Your task to perform on an android device: Go to Yahoo.com Image 0: 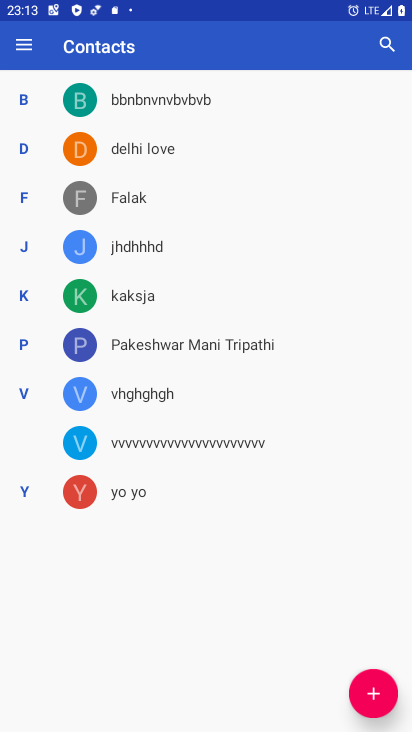
Step 0: press home button
Your task to perform on an android device: Go to Yahoo.com Image 1: 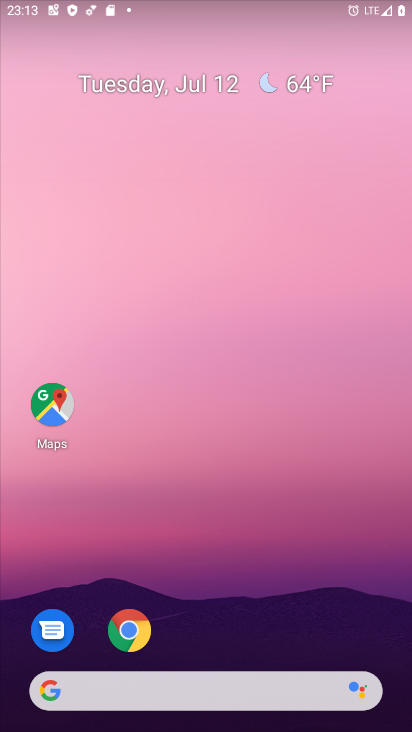
Step 1: drag from (206, 682) to (129, 0)
Your task to perform on an android device: Go to Yahoo.com Image 2: 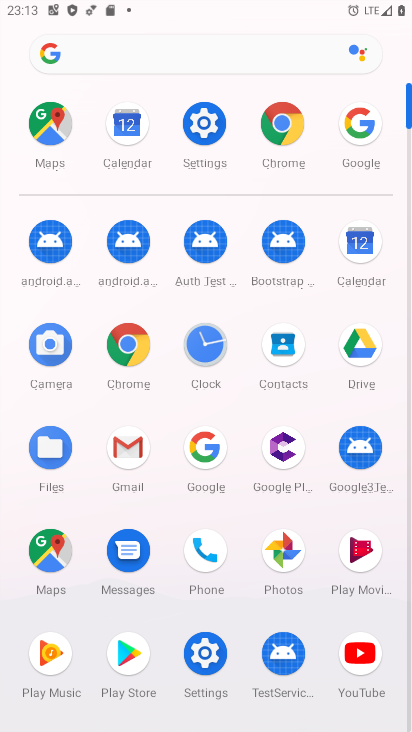
Step 2: click (200, 448)
Your task to perform on an android device: Go to Yahoo.com Image 3: 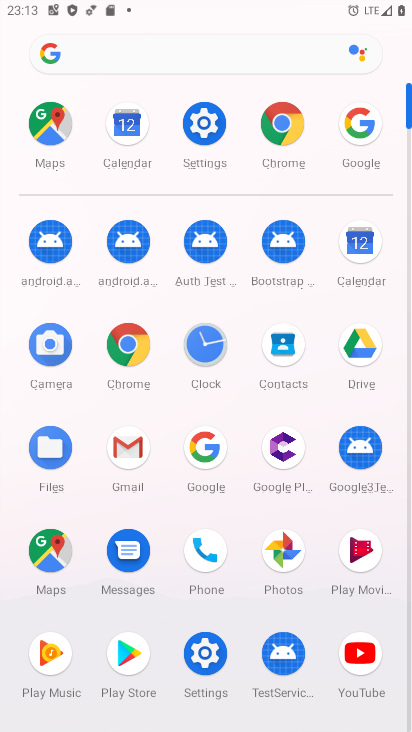
Step 3: click (200, 448)
Your task to perform on an android device: Go to Yahoo.com Image 4: 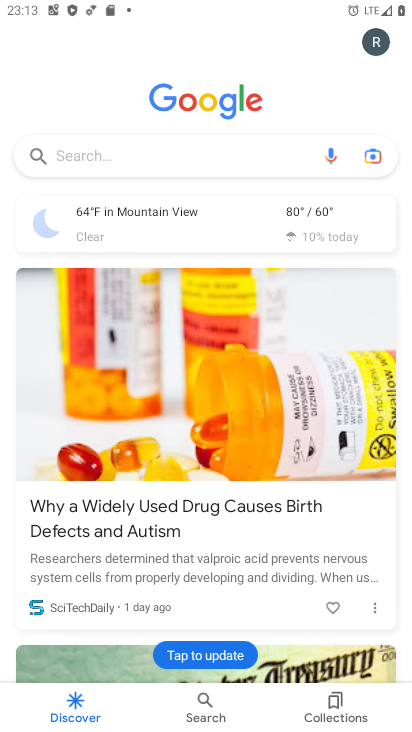
Step 4: click (180, 174)
Your task to perform on an android device: Go to Yahoo.com Image 5: 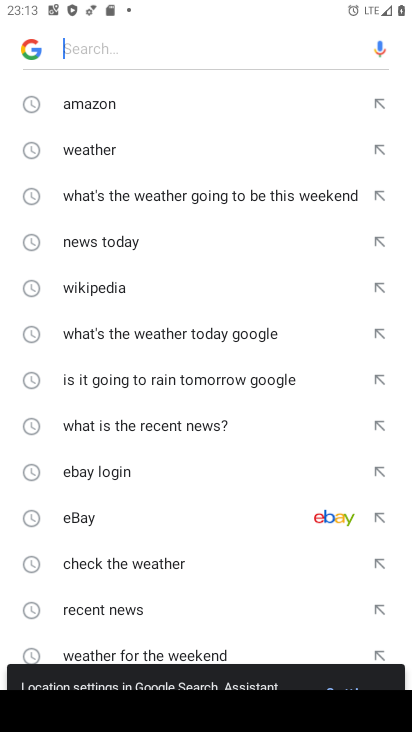
Step 5: type "Yahoo.com"
Your task to perform on an android device: Go to Yahoo.com Image 6: 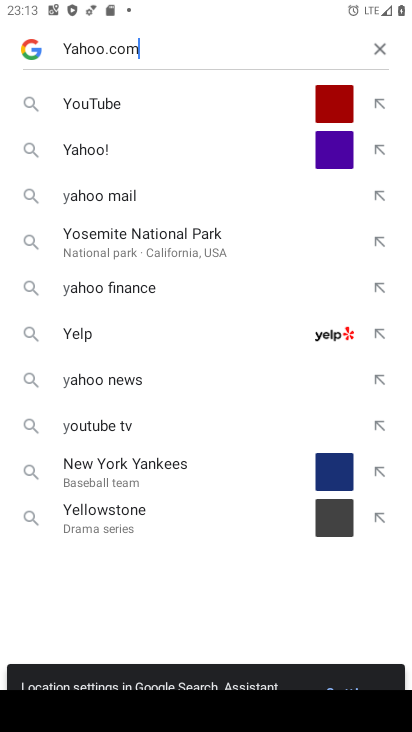
Step 6: type ""
Your task to perform on an android device: Go to Yahoo.com Image 7: 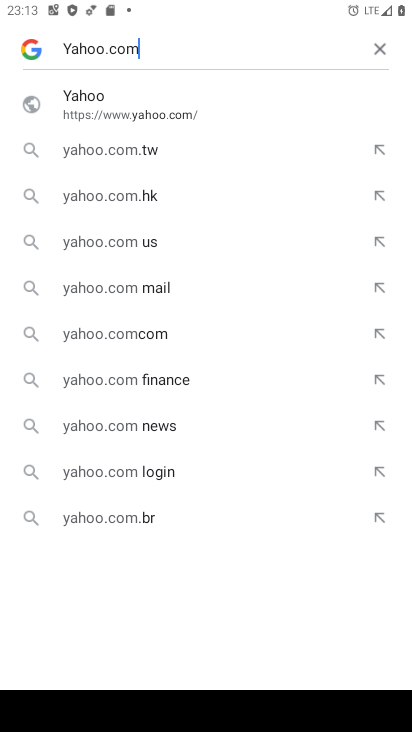
Step 7: click (72, 112)
Your task to perform on an android device: Go to Yahoo.com Image 8: 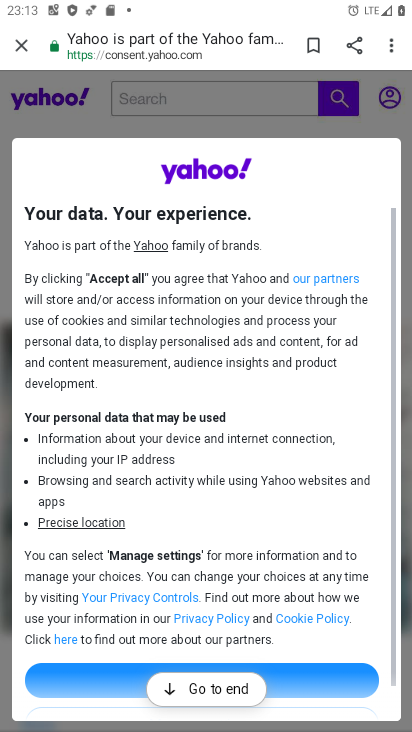
Step 8: task complete